Your task to perform on an android device: change the clock display to analog Image 0: 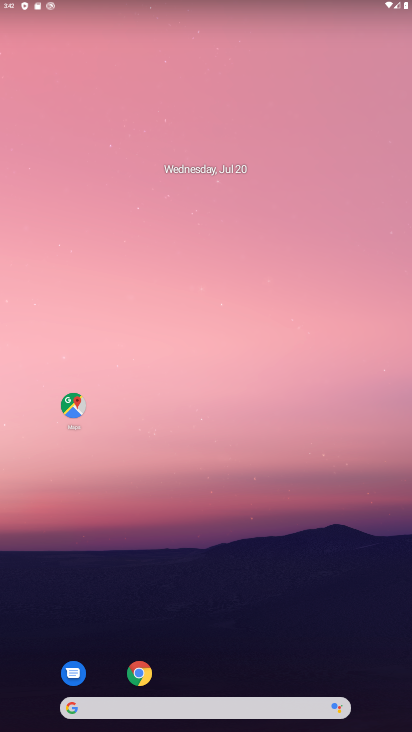
Step 0: drag from (309, 666) to (204, 182)
Your task to perform on an android device: change the clock display to analog Image 1: 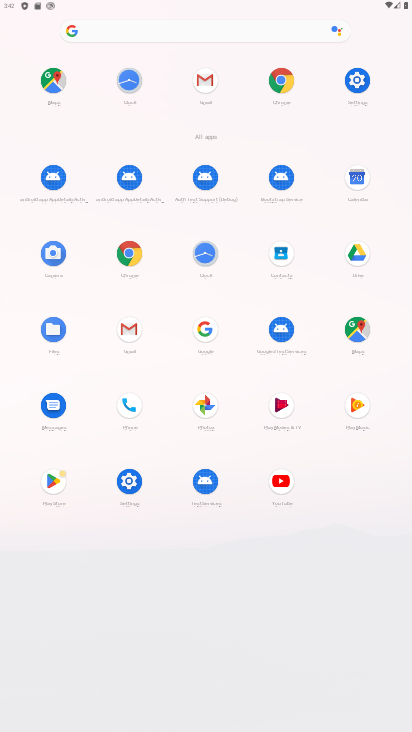
Step 1: click (207, 261)
Your task to perform on an android device: change the clock display to analog Image 2: 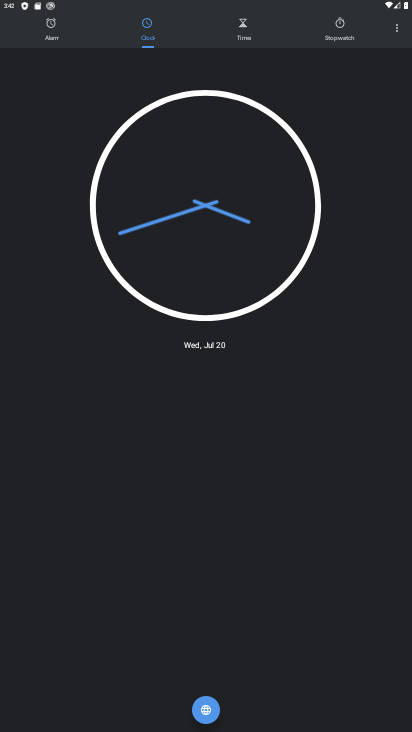
Step 2: click (396, 32)
Your task to perform on an android device: change the clock display to analog Image 3: 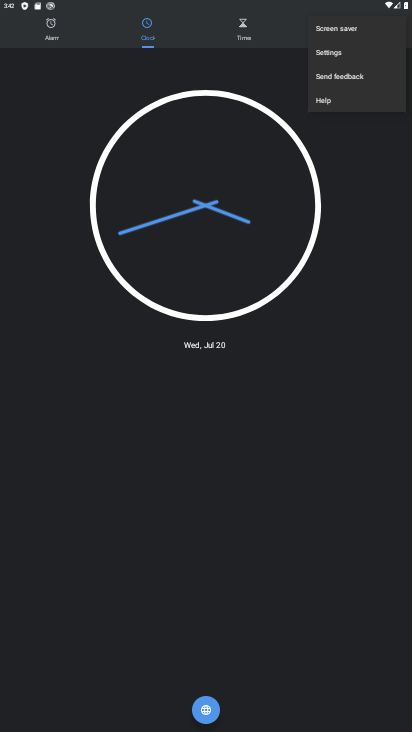
Step 3: click (353, 59)
Your task to perform on an android device: change the clock display to analog Image 4: 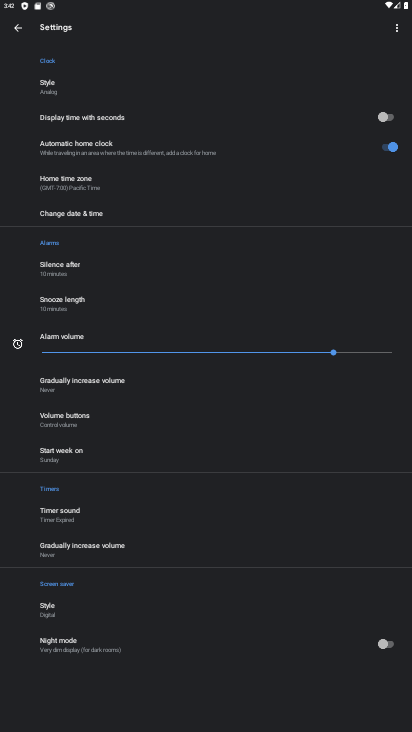
Step 4: click (62, 98)
Your task to perform on an android device: change the clock display to analog Image 5: 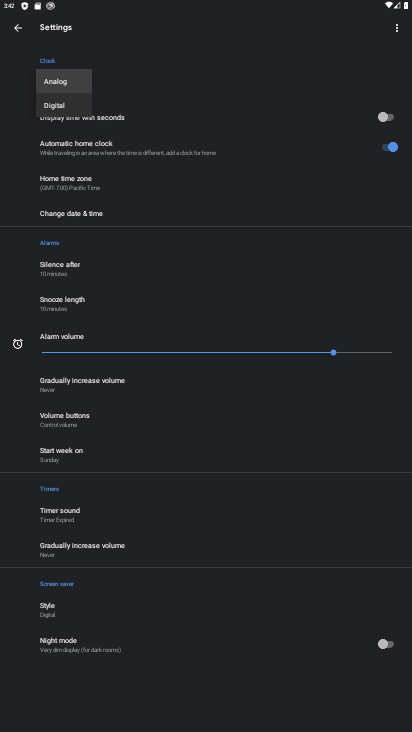
Step 5: task complete